Your task to perform on an android device: move an email to a new category in the gmail app Image 0: 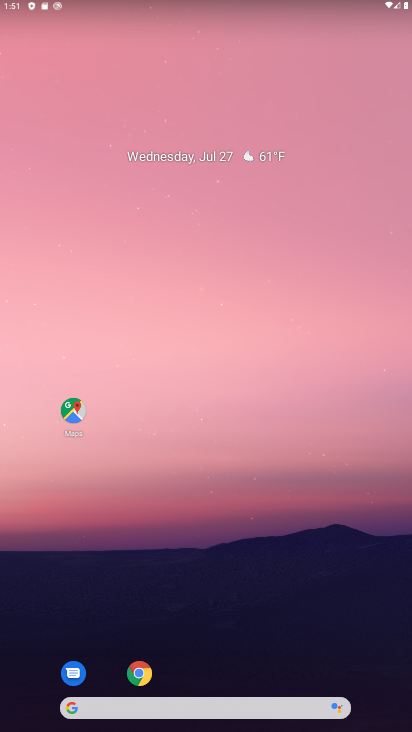
Step 0: drag from (209, 687) to (190, 83)
Your task to perform on an android device: move an email to a new category in the gmail app Image 1: 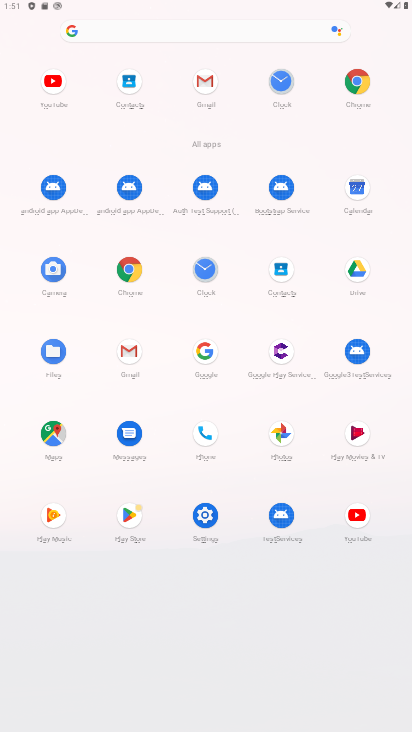
Step 1: click (212, 90)
Your task to perform on an android device: move an email to a new category in the gmail app Image 2: 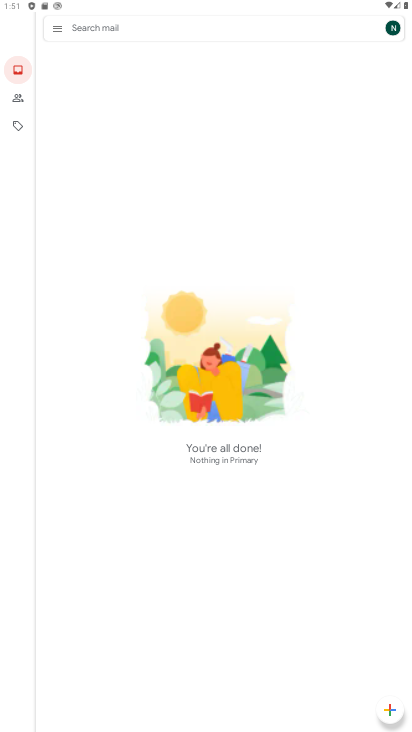
Step 2: task complete